Your task to perform on an android device: See recent photos Image 0: 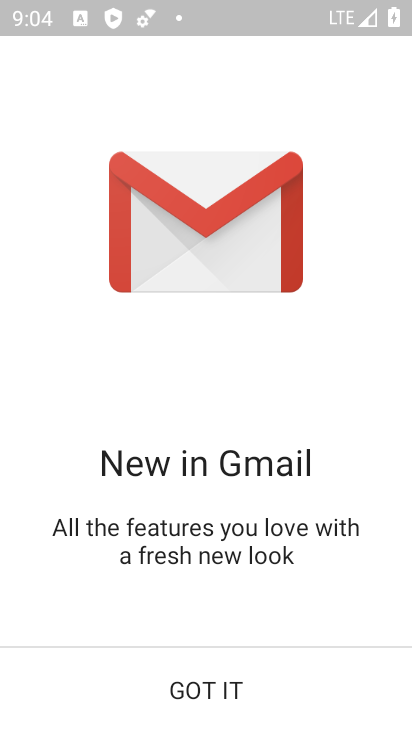
Step 0: press home button
Your task to perform on an android device: See recent photos Image 1: 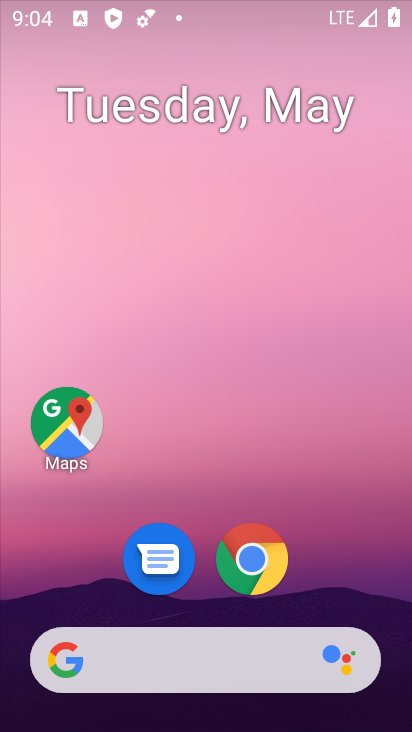
Step 1: drag from (203, 595) to (208, 183)
Your task to perform on an android device: See recent photos Image 2: 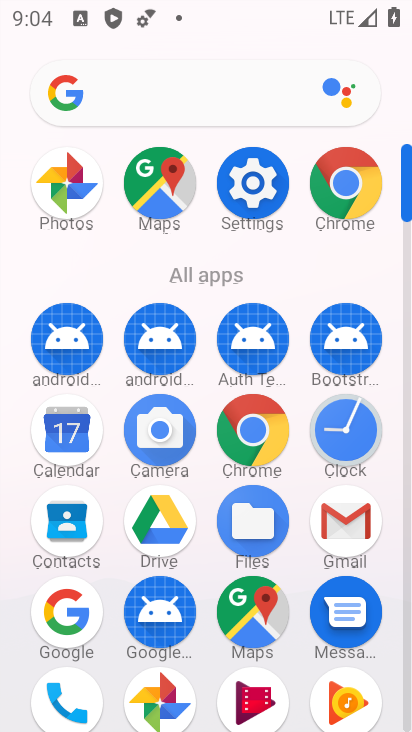
Step 2: click (83, 627)
Your task to perform on an android device: See recent photos Image 3: 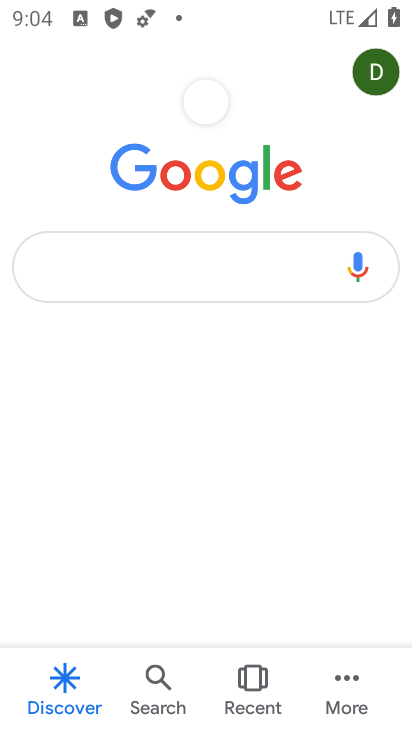
Step 3: click (176, 250)
Your task to perform on an android device: See recent photos Image 4: 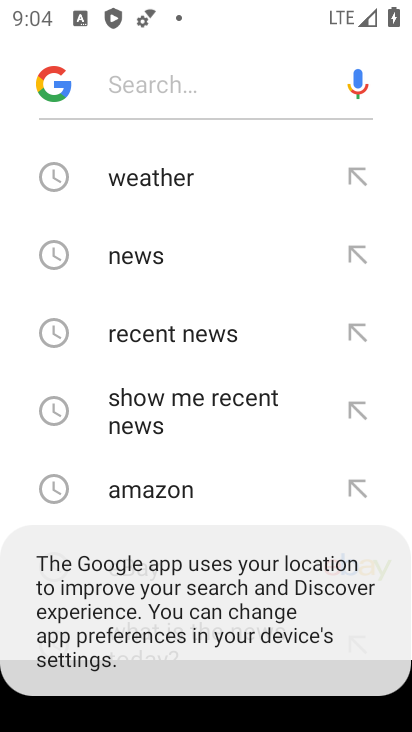
Step 4: click (146, 246)
Your task to perform on an android device: See recent photos Image 5: 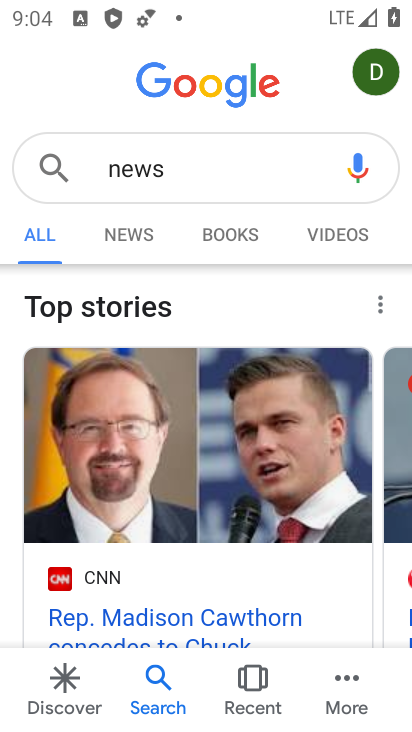
Step 5: click (147, 227)
Your task to perform on an android device: See recent photos Image 6: 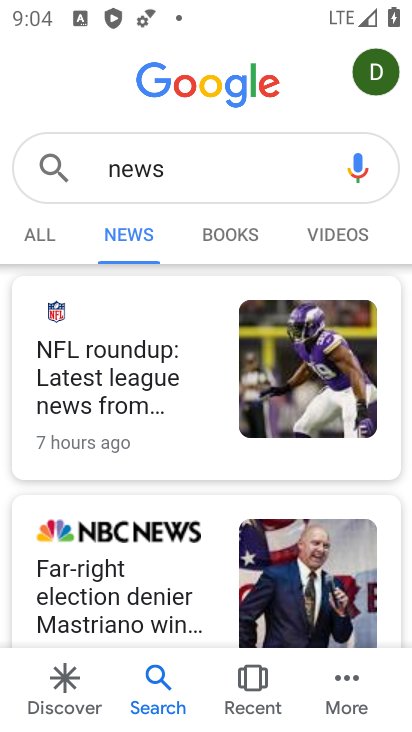
Step 6: task complete